Your task to perform on an android device: star an email in the gmail app Image 0: 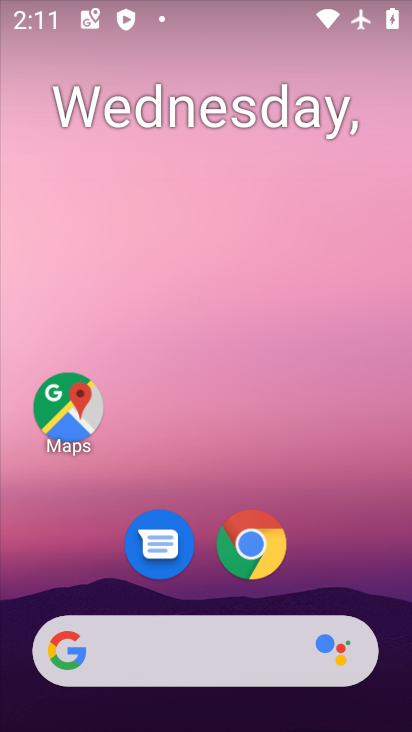
Step 0: drag from (333, 569) to (302, 90)
Your task to perform on an android device: star an email in the gmail app Image 1: 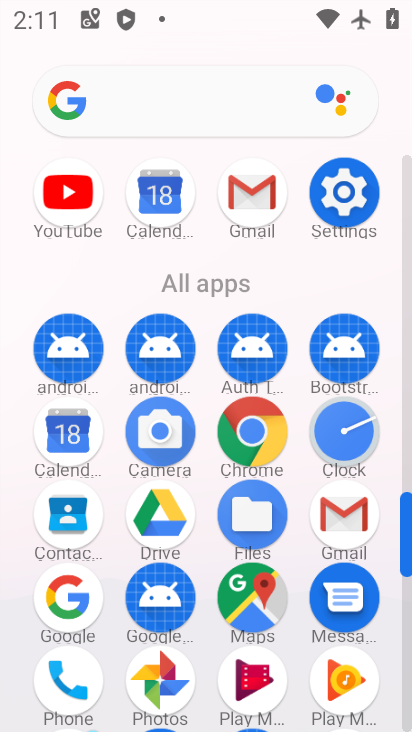
Step 1: click (266, 164)
Your task to perform on an android device: star an email in the gmail app Image 2: 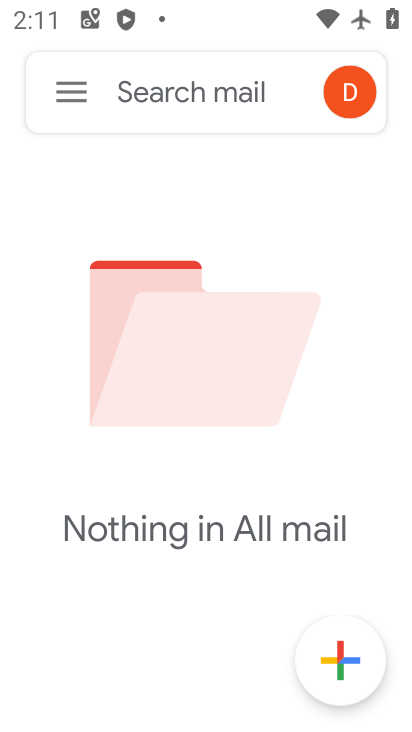
Step 2: click (58, 81)
Your task to perform on an android device: star an email in the gmail app Image 3: 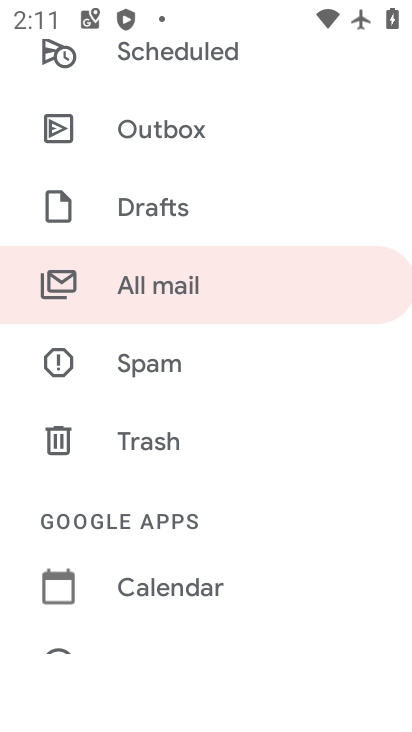
Step 3: click (147, 299)
Your task to perform on an android device: star an email in the gmail app Image 4: 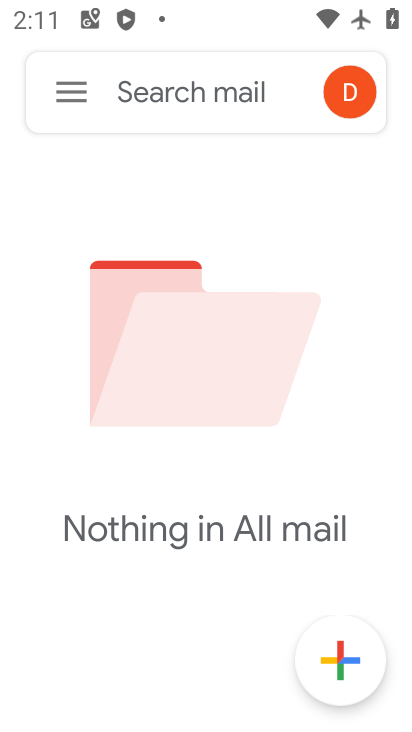
Step 4: task complete